Your task to perform on an android device: install app "McDonald's" Image 0: 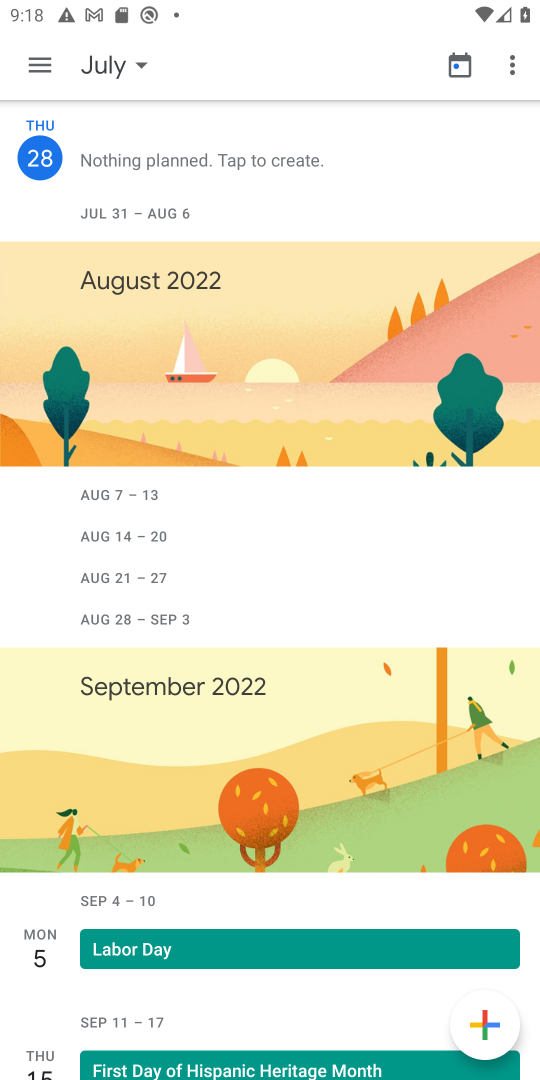
Step 0: press home button
Your task to perform on an android device: install app "McDonald's" Image 1: 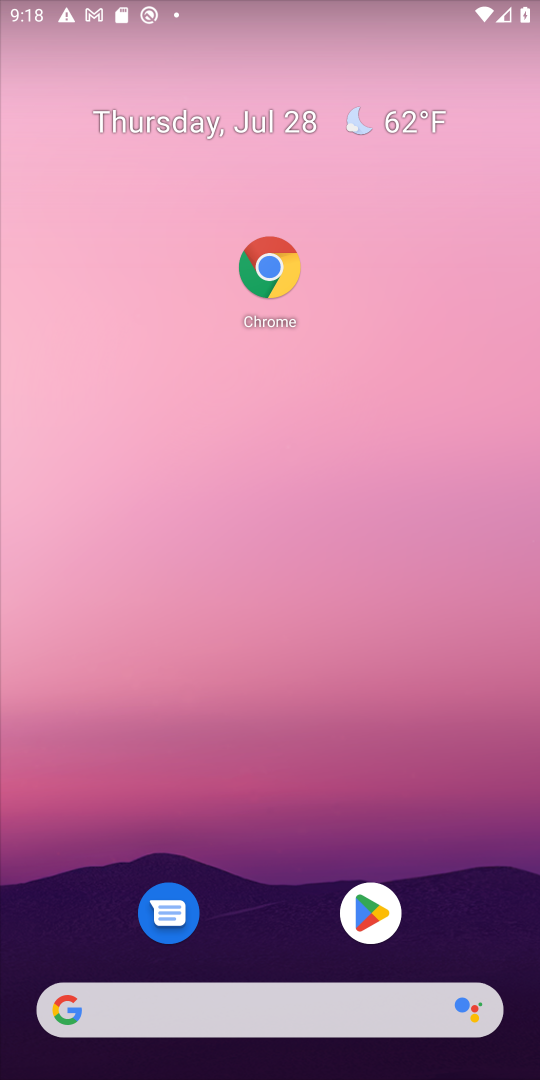
Step 1: click (371, 898)
Your task to perform on an android device: install app "McDonald's" Image 2: 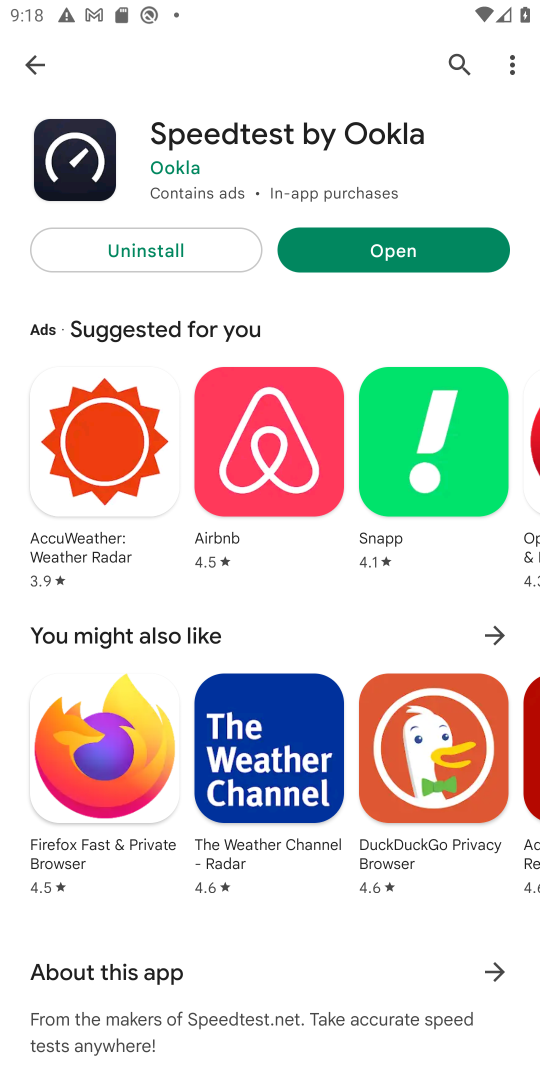
Step 2: click (453, 64)
Your task to perform on an android device: install app "McDonald's" Image 3: 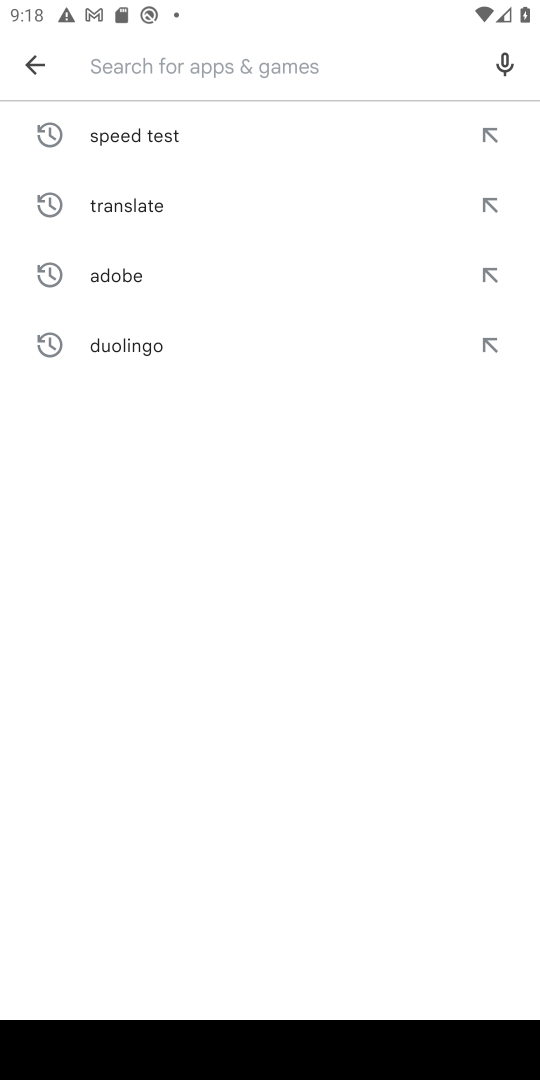
Step 3: click (502, 1073)
Your task to perform on an android device: install app "McDonald's" Image 4: 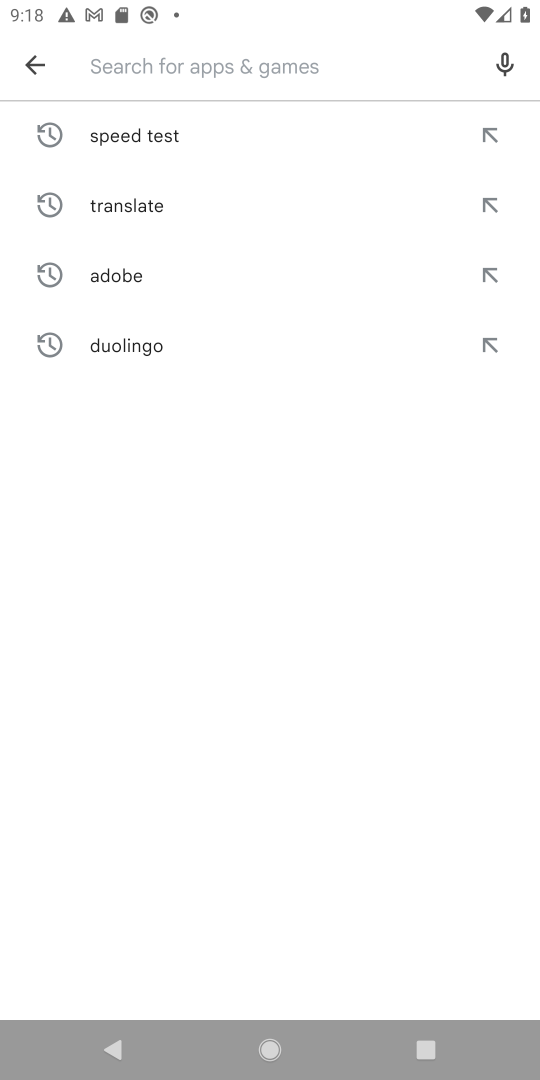
Step 4: drag from (492, 1077) to (517, 917)
Your task to perform on an android device: install app "McDonald's" Image 5: 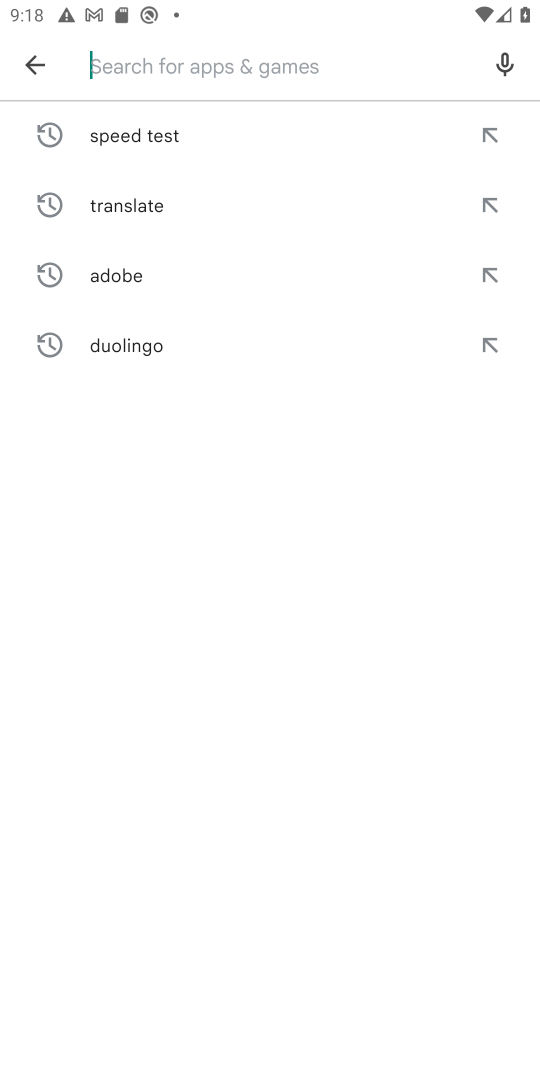
Step 5: click (166, 77)
Your task to perform on an android device: install app "McDonald's" Image 6: 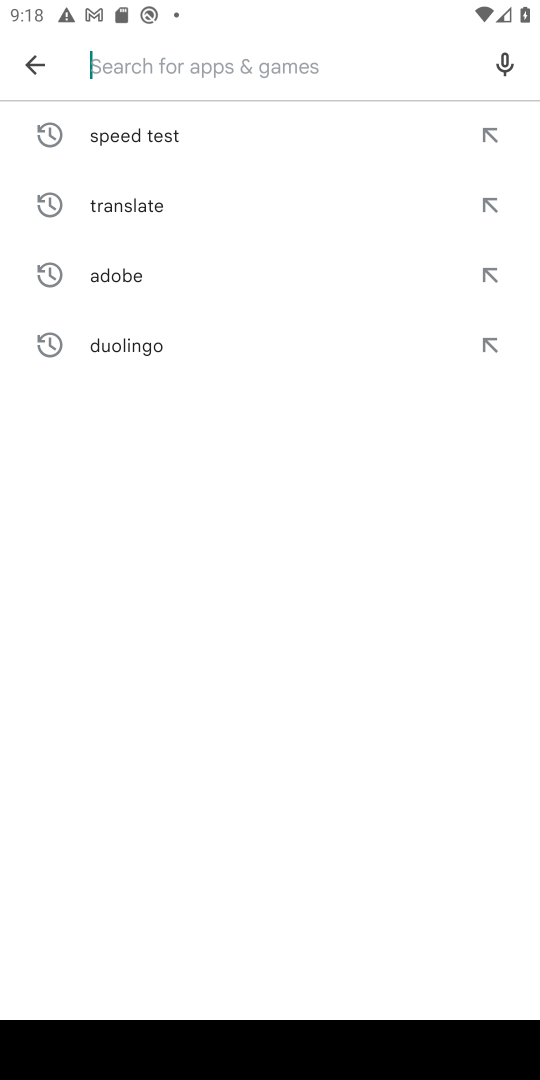
Step 6: type "mcd"
Your task to perform on an android device: install app "McDonald's" Image 7: 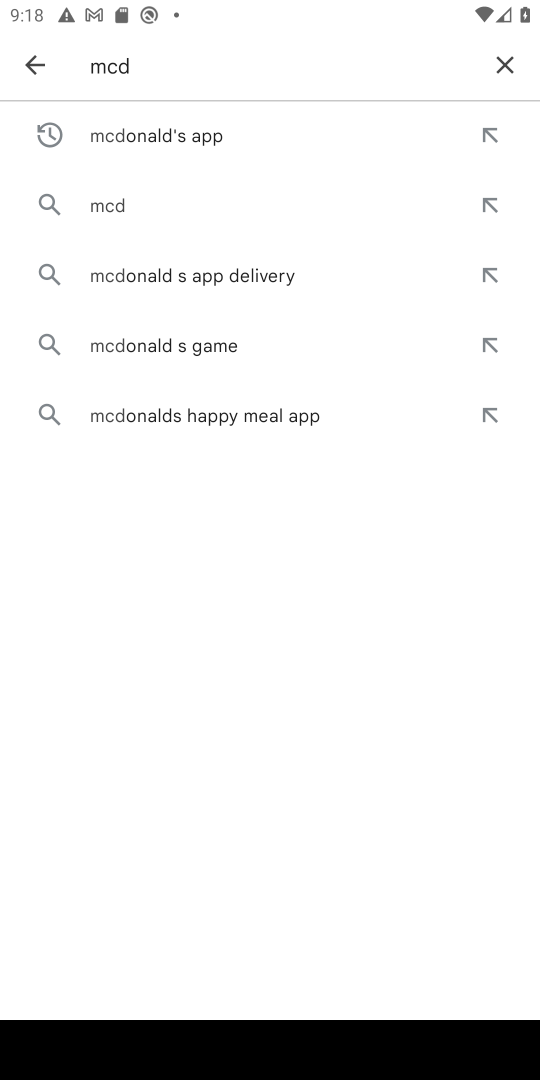
Step 7: click (218, 147)
Your task to perform on an android device: install app "McDonald's" Image 8: 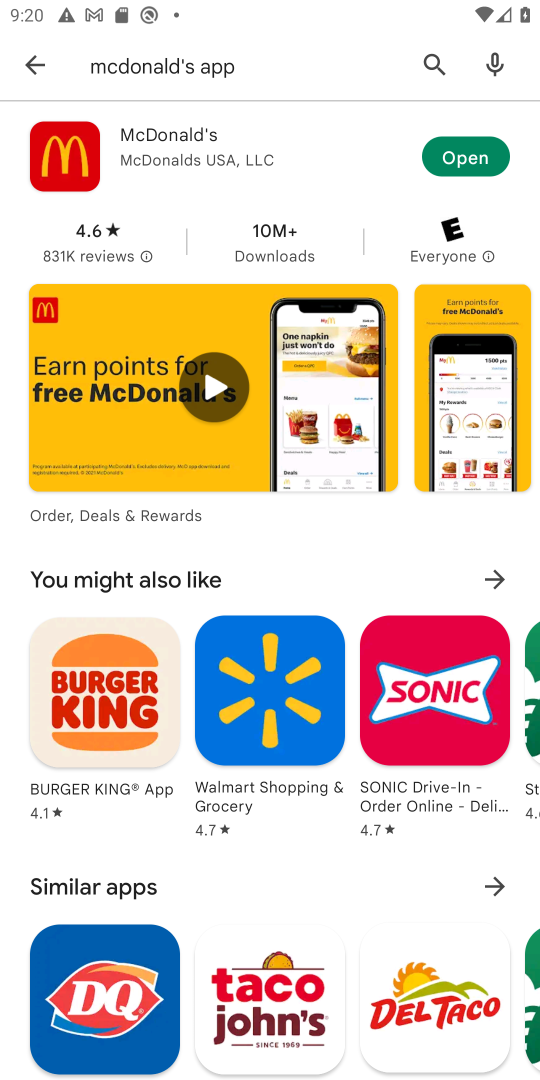
Step 8: task complete